Your task to perform on an android device: change the clock display to analog Image 0: 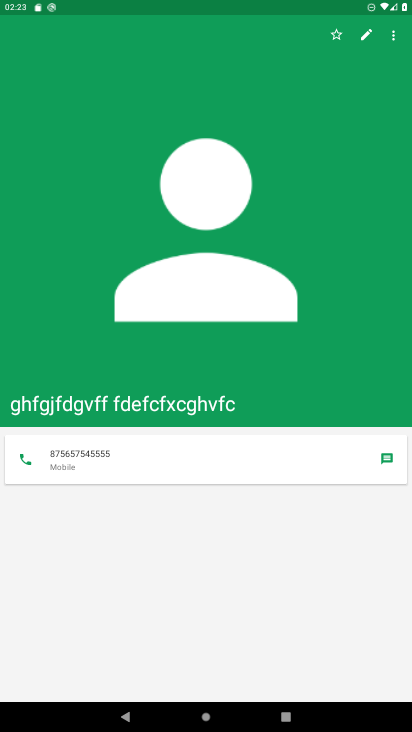
Step 0: press home button
Your task to perform on an android device: change the clock display to analog Image 1: 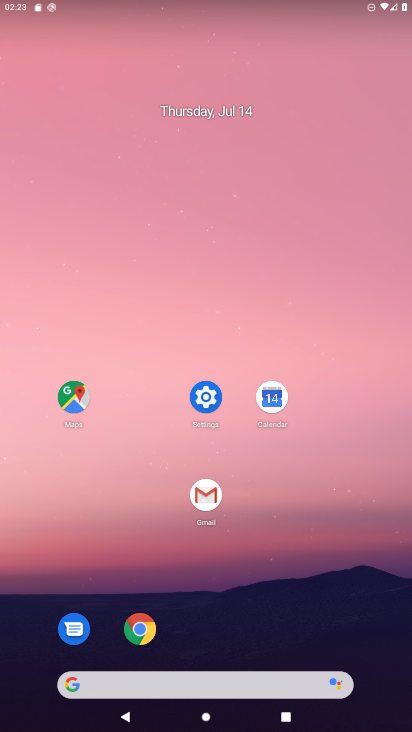
Step 1: drag from (396, 696) to (332, 209)
Your task to perform on an android device: change the clock display to analog Image 2: 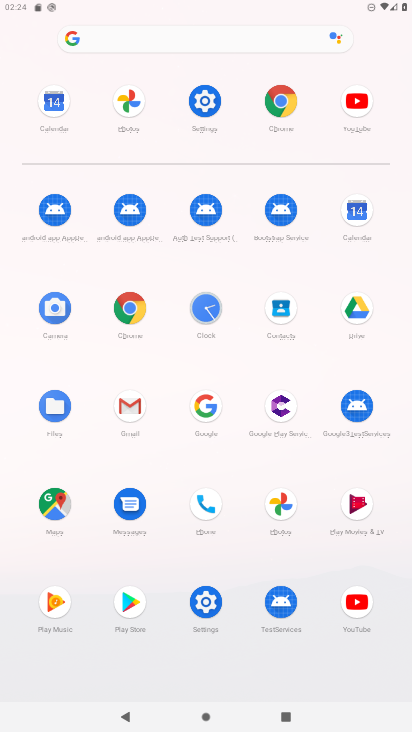
Step 2: click (205, 319)
Your task to perform on an android device: change the clock display to analog Image 3: 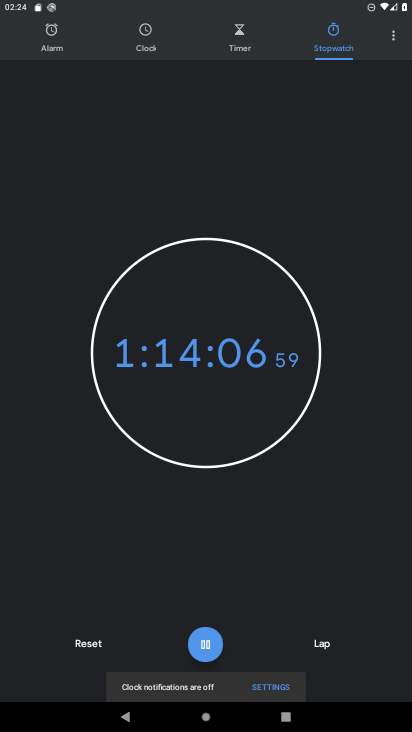
Step 3: click (397, 41)
Your task to perform on an android device: change the clock display to analog Image 4: 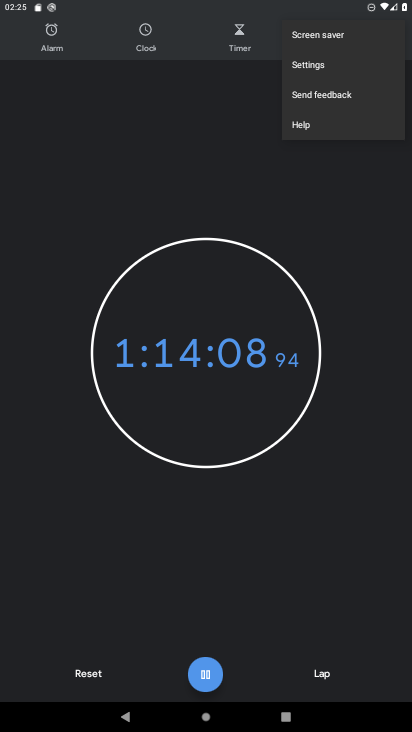
Step 4: click (297, 68)
Your task to perform on an android device: change the clock display to analog Image 5: 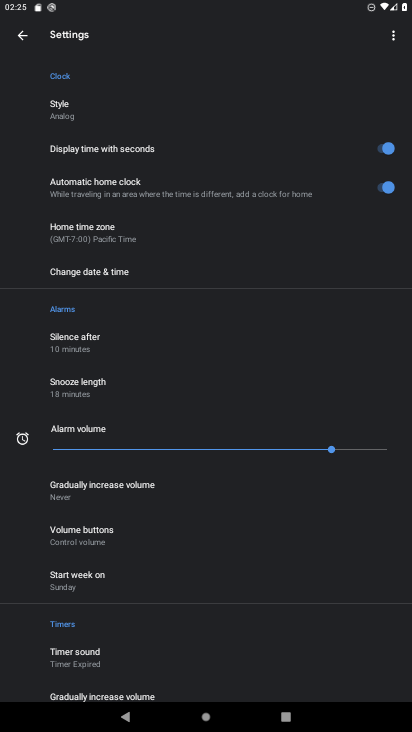
Step 5: click (73, 112)
Your task to perform on an android device: change the clock display to analog Image 6: 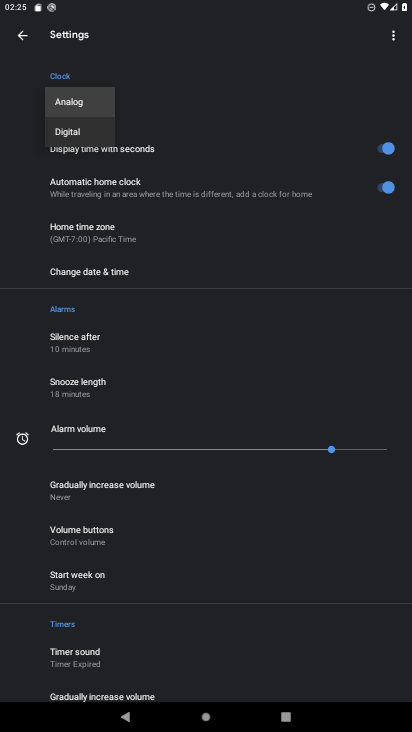
Step 6: task complete